Your task to perform on an android device: Go to Amazon Image 0: 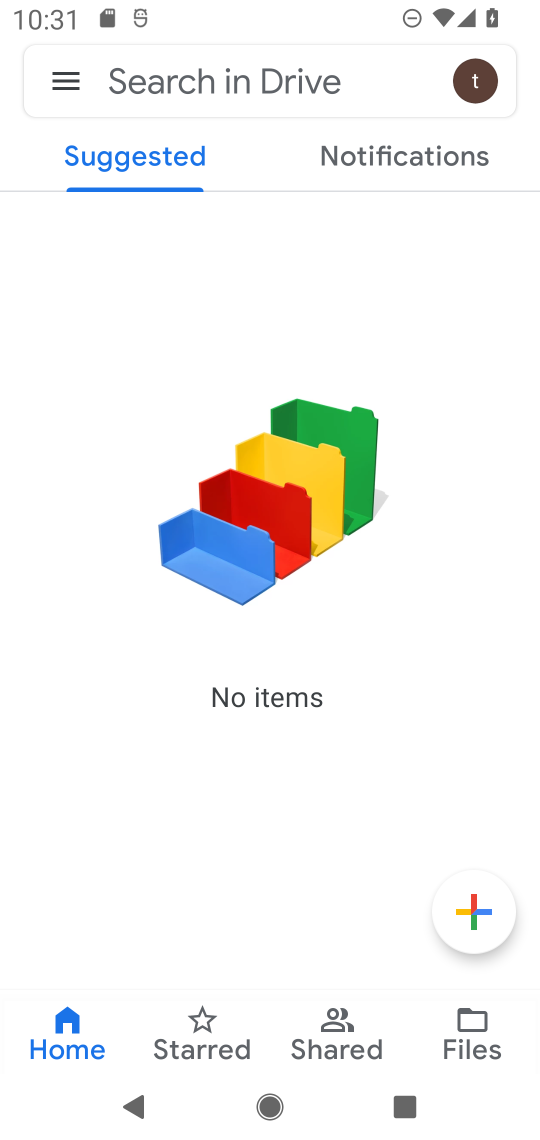
Step 0: press home button
Your task to perform on an android device: Go to Amazon Image 1: 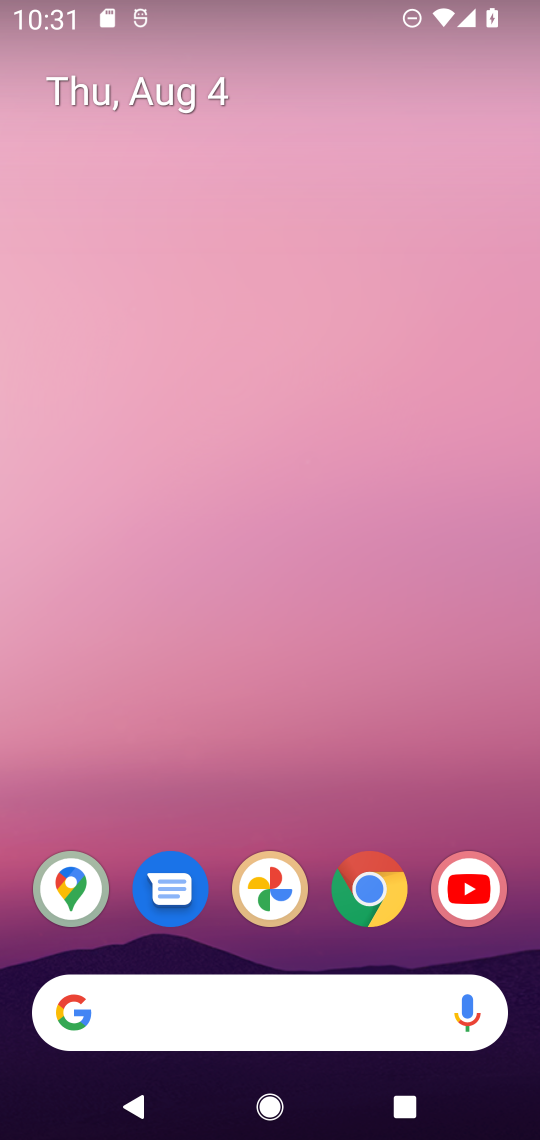
Step 1: drag from (375, 760) to (401, 296)
Your task to perform on an android device: Go to Amazon Image 2: 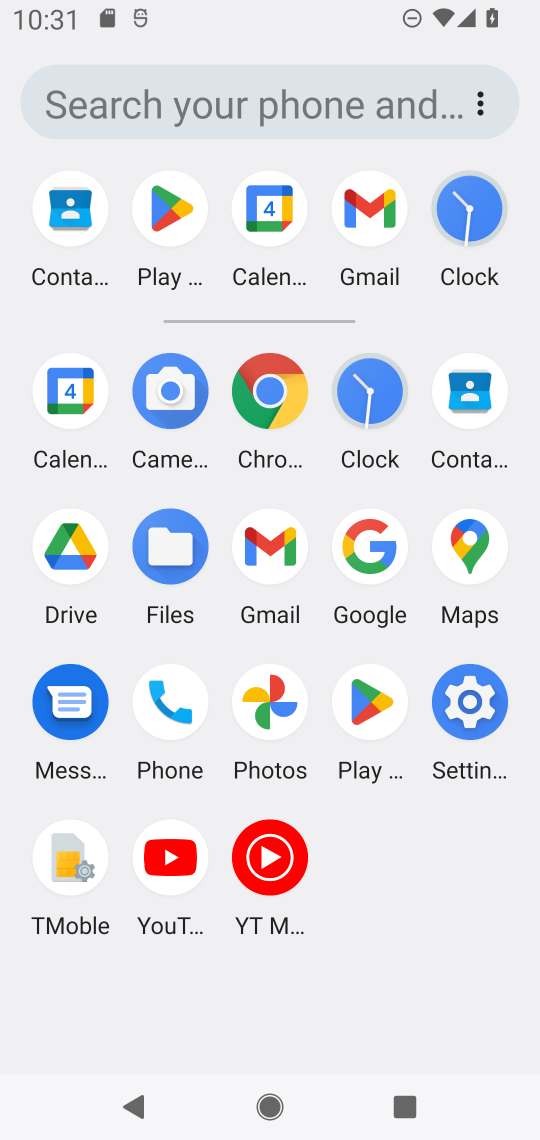
Step 2: click (279, 390)
Your task to perform on an android device: Go to Amazon Image 3: 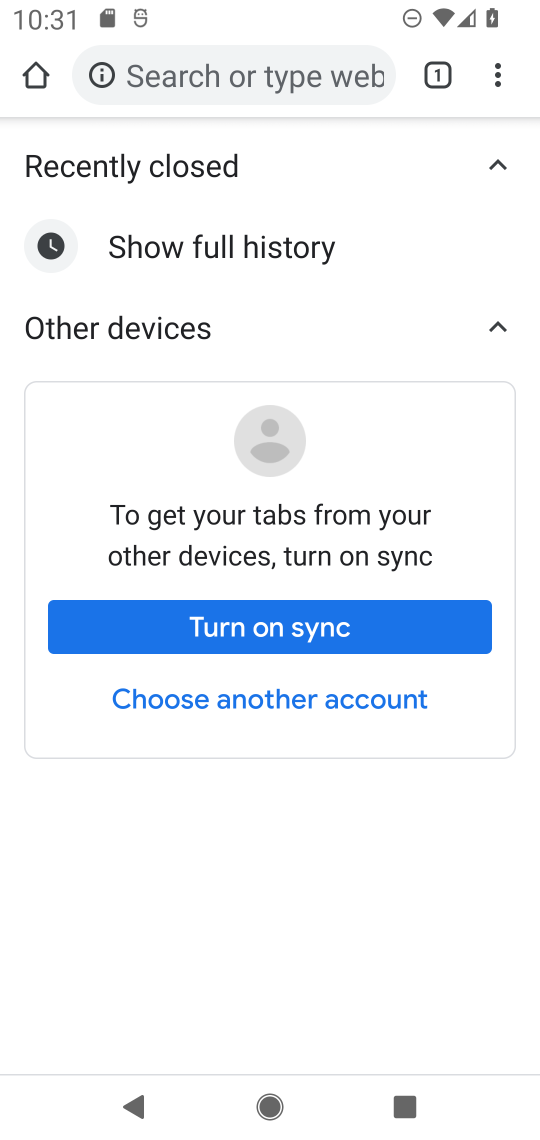
Step 3: click (325, 75)
Your task to perform on an android device: Go to Amazon Image 4: 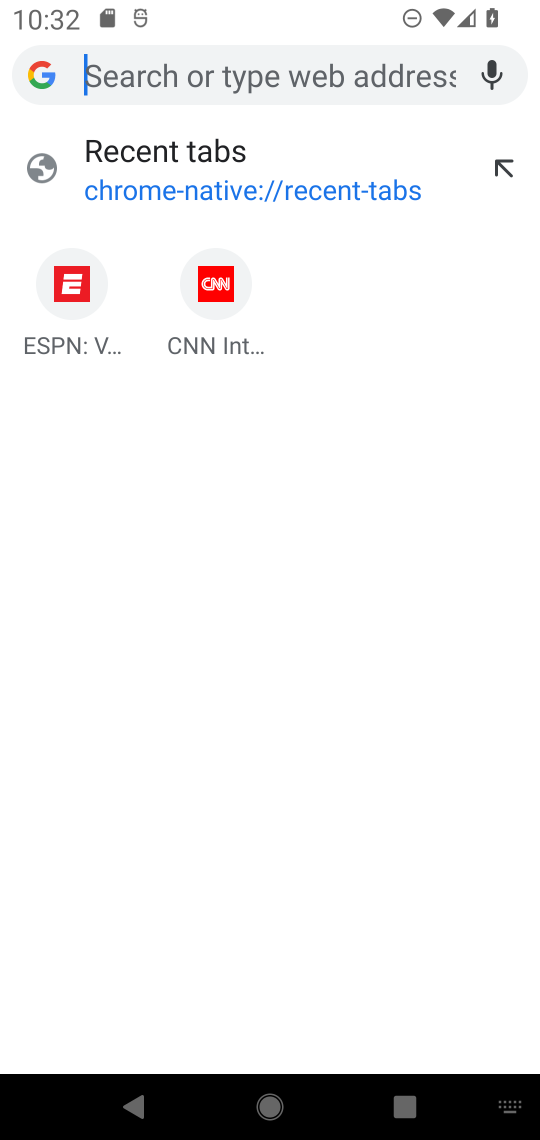
Step 4: type "amazon"
Your task to perform on an android device: Go to Amazon Image 5: 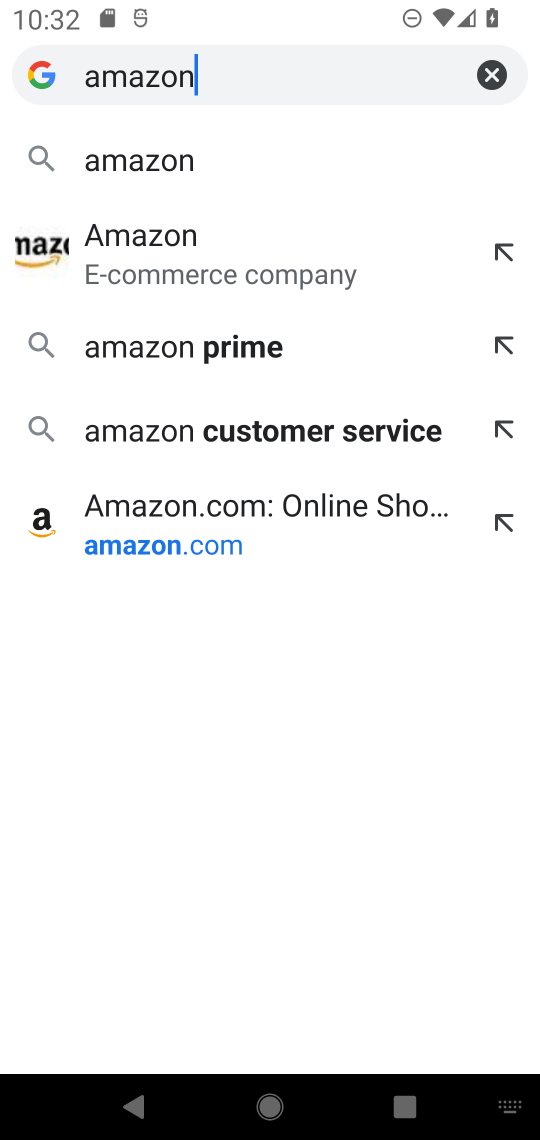
Step 5: click (187, 165)
Your task to perform on an android device: Go to Amazon Image 6: 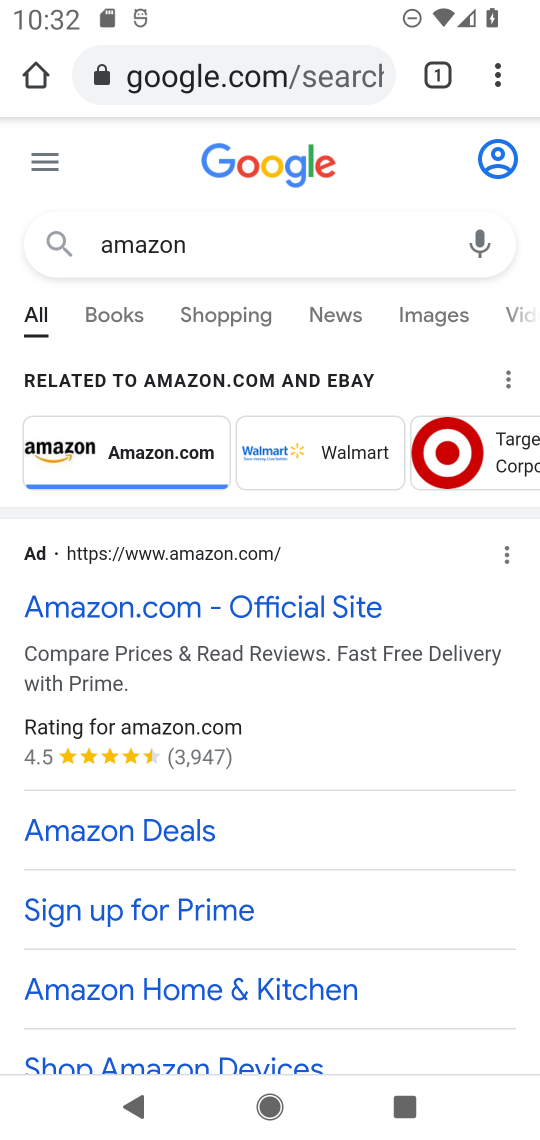
Step 6: task complete